Your task to perform on an android device: set an alarm Image 0: 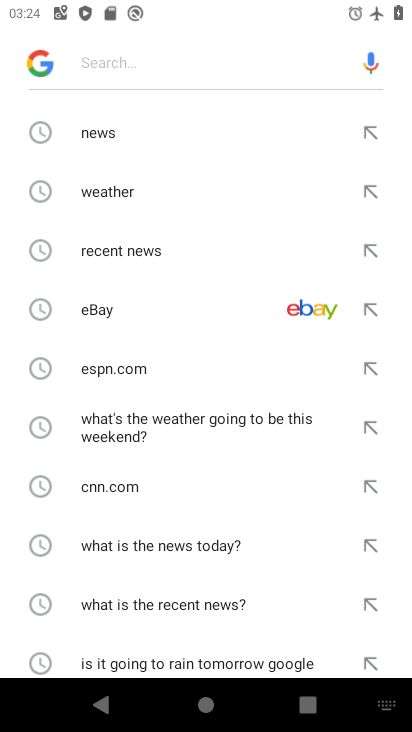
Step 0: press back button
Your task to perform on an android device: set an alarm Image 1: 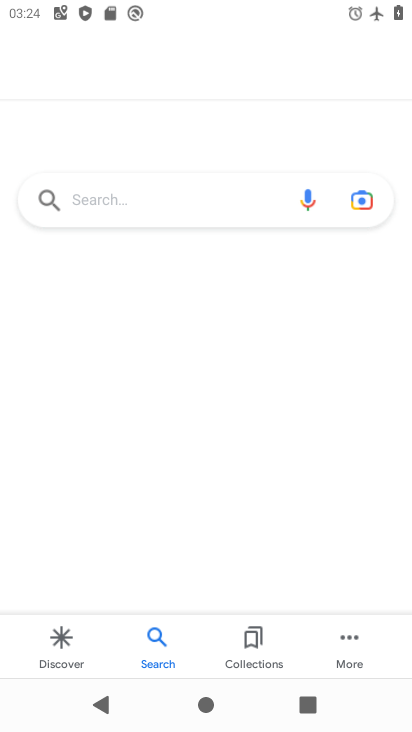
Step 1: press back button
Your task to perform on an android device: set an alarm Image 2: 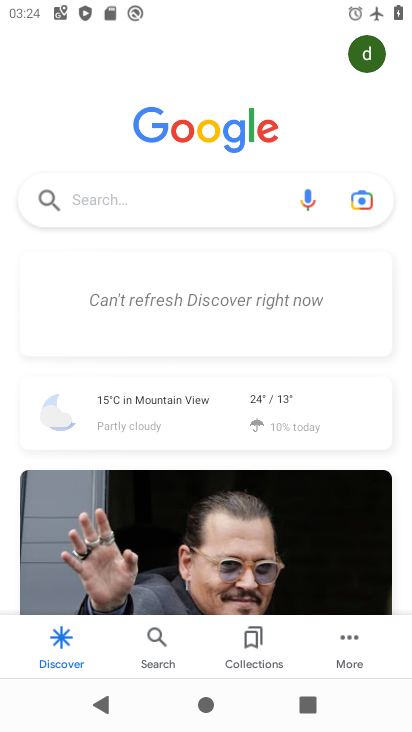
Step 2: press back button
Your task to perform on an android device: set an alarm Image 3: 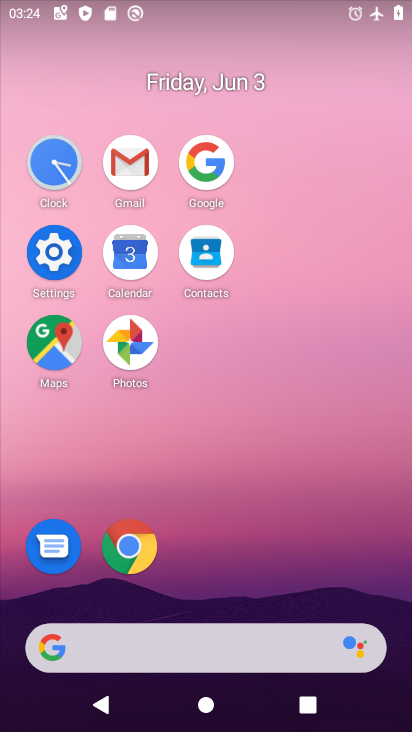
Step 3: click (59, 159)
Your task to perform on an android device: set an alarm Image 4: 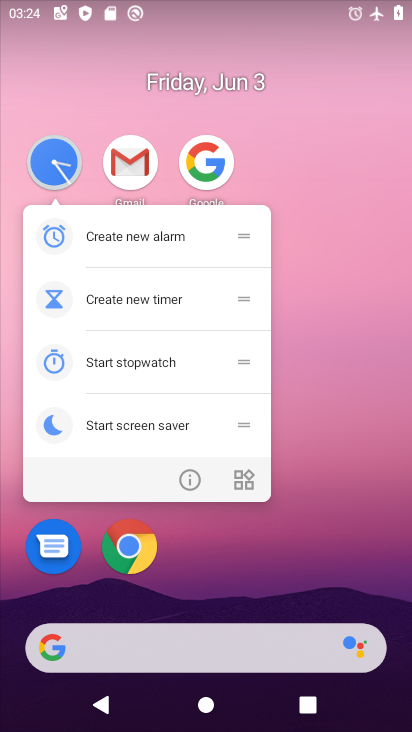
Step 4: click (51, 165)
Your task to perform on an android device: set an alarm Image 5: 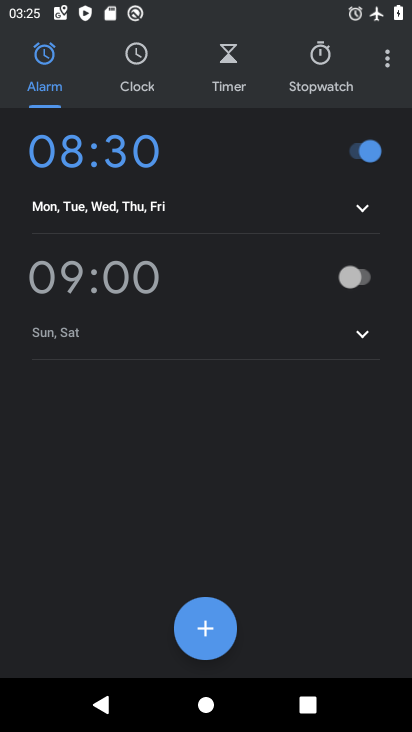
Step 5: task complete